Your task to perform on an android device: Open Chrome and go to settings Image 0: 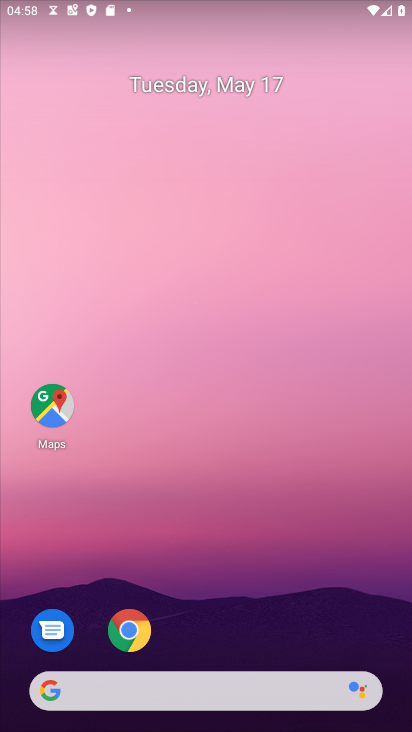
Step 0: click (115, 631)
Your task to perform on an android device: Open Chrome and go to settings Image 1: 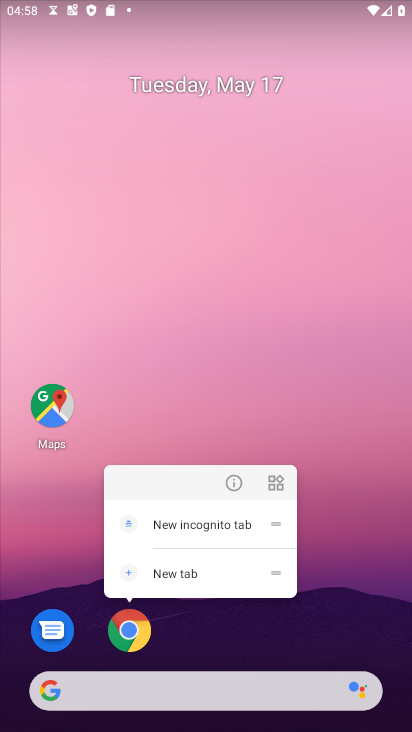
Step 1: click (128, 631)
Your task to perform on an android device: Open Chrome and go to settings Image 2: 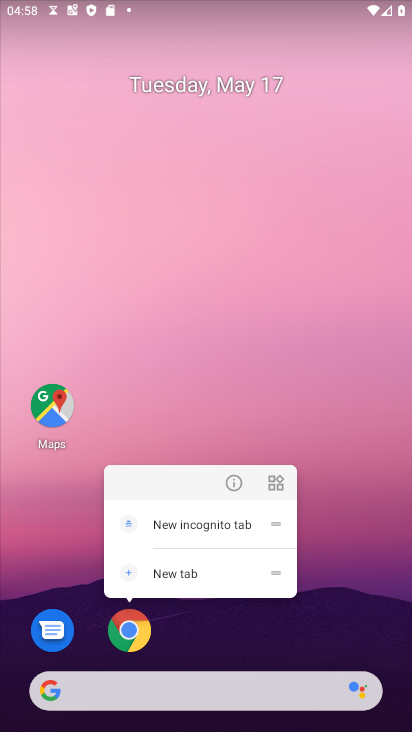
Step 2: click (128, 631)
Your task to perform on an android device: Open Chrome and go to settings Image 3: 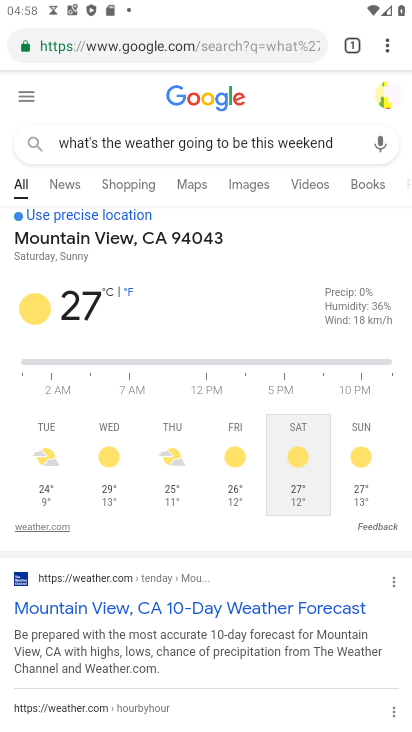
Step 3: task complete